Your task to perform on an android device: Open eBay Image 0: 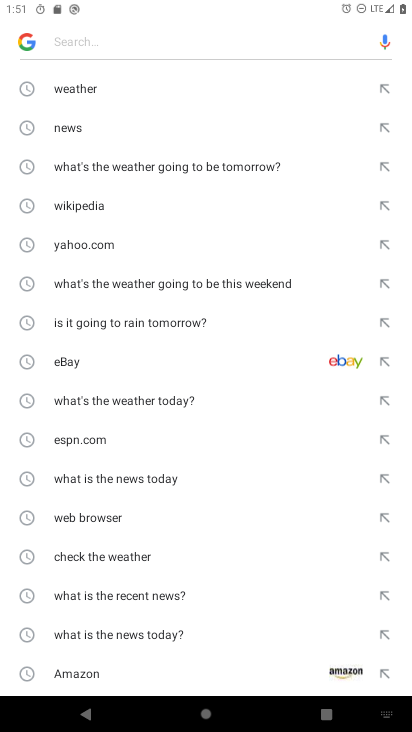
Step 0: press home button
Your task to perform on an android device: Open eBay Image 1: 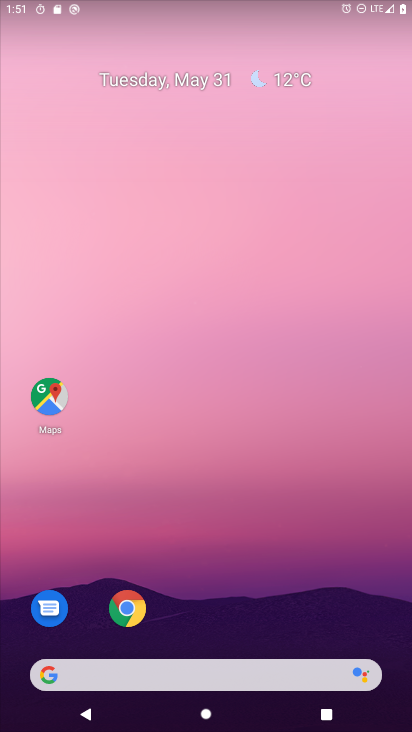
Step 1: click (129, 612)
Your task to perform on an android device: Open eBay Image 2: 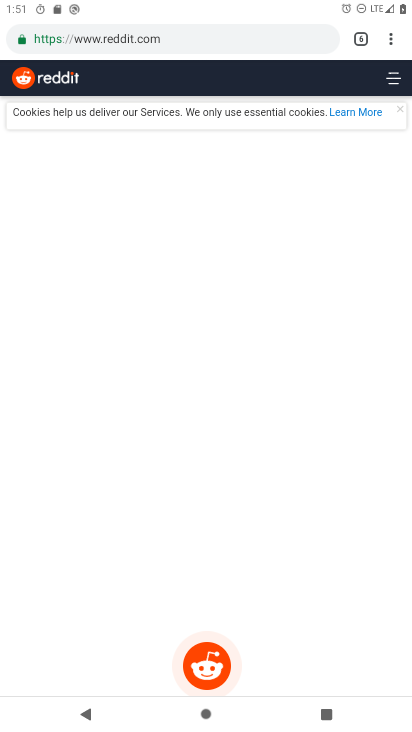
Step 2: click (82, 39)
Your task to perform on an android device: Open eBay Image 3: 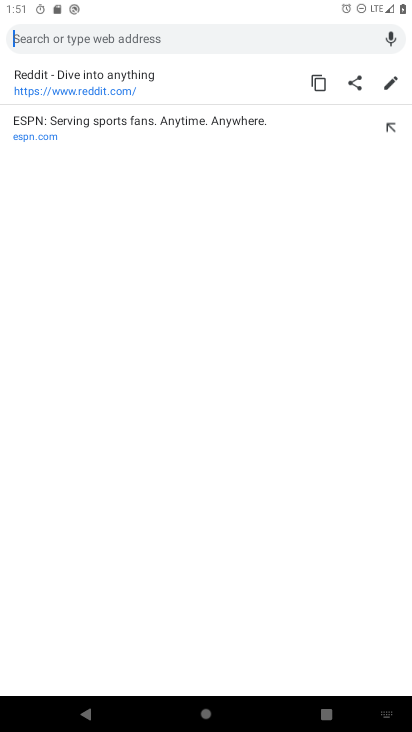
Step 3: type "ebay"
Your task to perform on an android device: Open eBay Image 4: 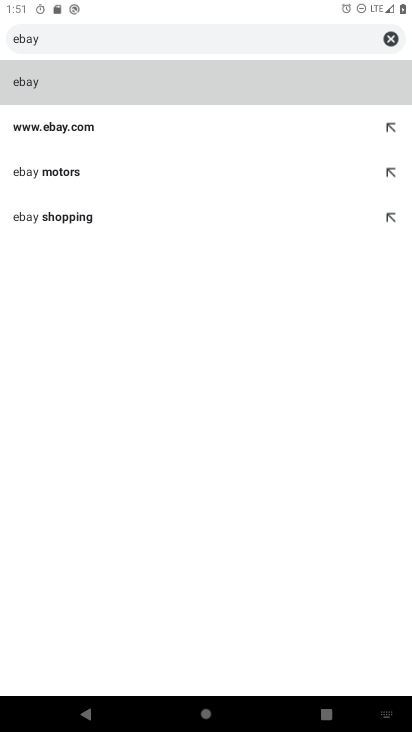
Step 4: click (29, 80)
Your task to perform on an android device: Open eBay Image 5: 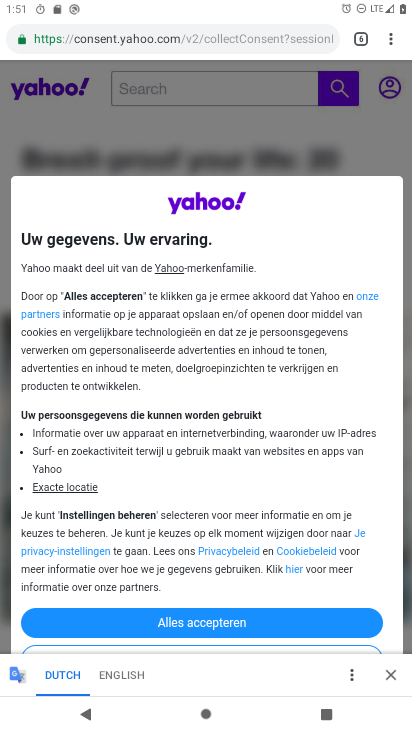
Step 5: click (214, 616)
Your task to perform on an android device: Open eBay Image 6: 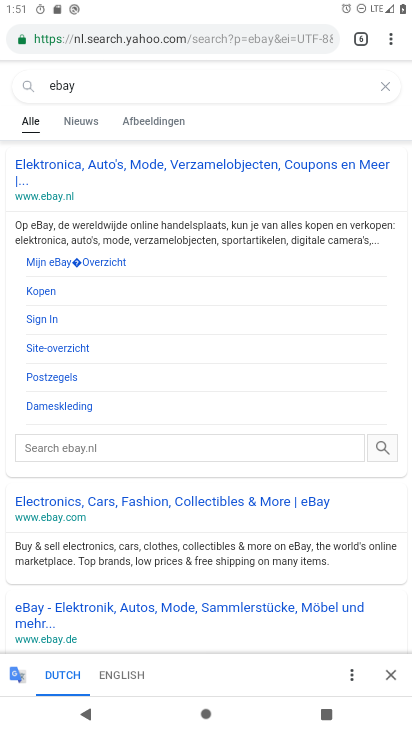
Step 6: click (22, 194)
Your task to perform on an android device: Open eBay Image 7: 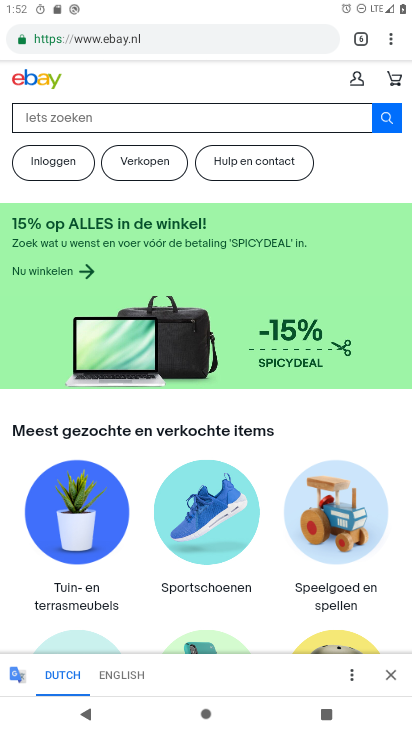
Step 7: task complete